Your task to perform on an android device: change text size in settings app Image 0: 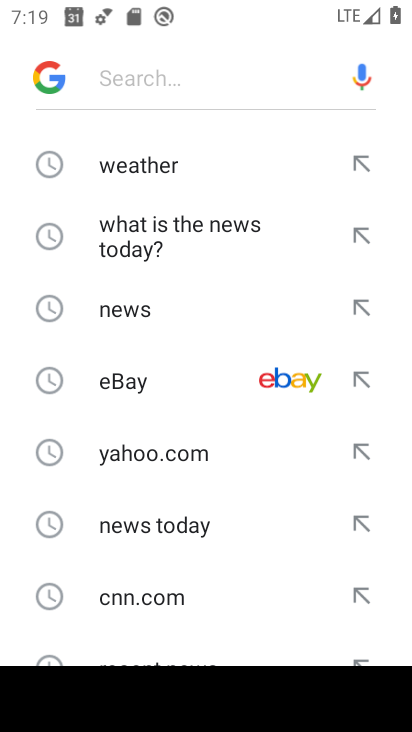
Step 0: press home button
Your task to perform on an android device: change text size in settings app Image 1: 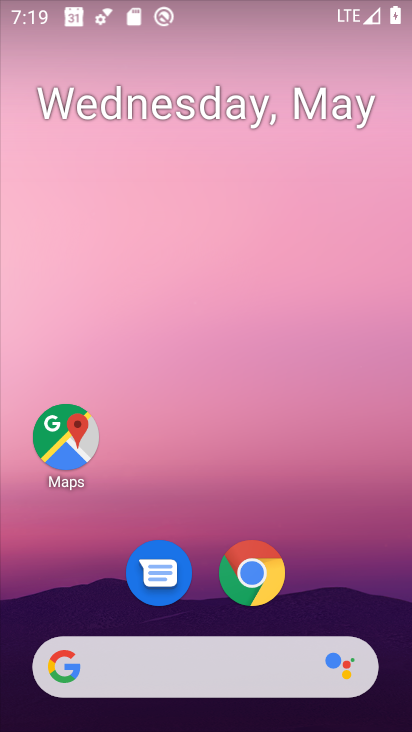
Step 1: drag from (390, 702) to (339, 186)
Your task to perform on an android device: change text size in settings app Image 2: 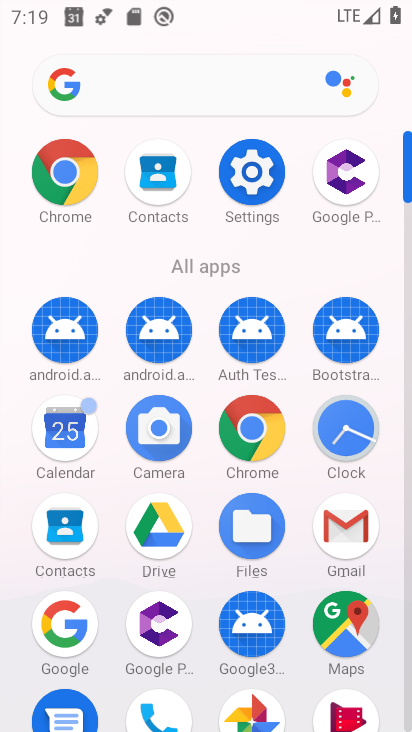
Step 2: click (255, 165)
Your task to perform on an android device: change text size in settings app Image 3: 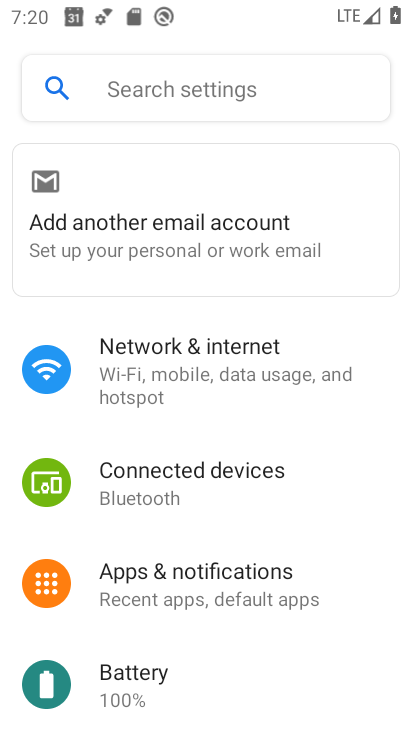
Step 3: drag from (282, 684) to (281, 315)
Your task to perform on an android device: change text size in settings app Image 4: 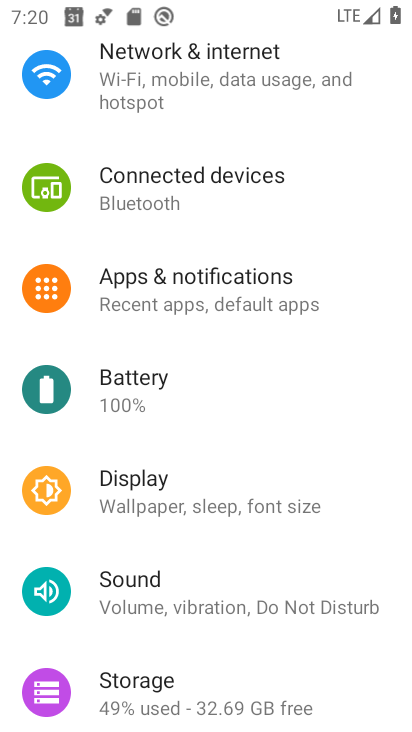
Step 4: click (181, 499)
Your task to perform on an android device: change text size in settings app Image 5: 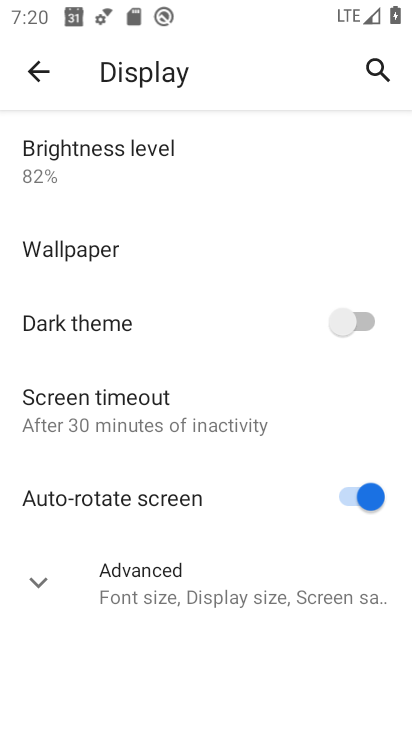
Step 5: click (50, 575)
Your task to perform on an android device: change text size in settings app Image 6: 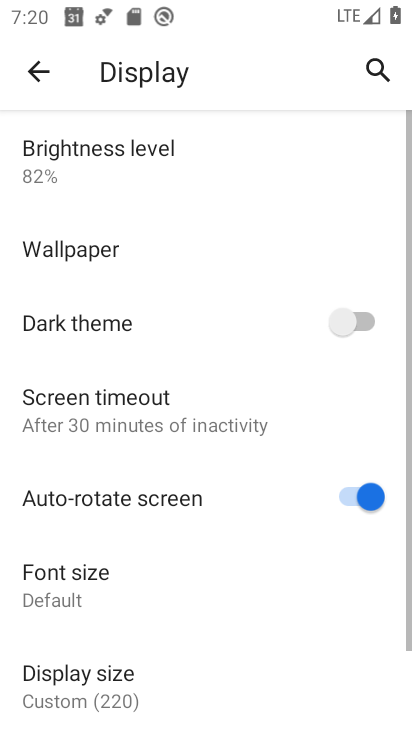
Step 6: drag from (230, 679) to (253, 355)
Your task to perform on an android device: change text size in settings app Image 7: 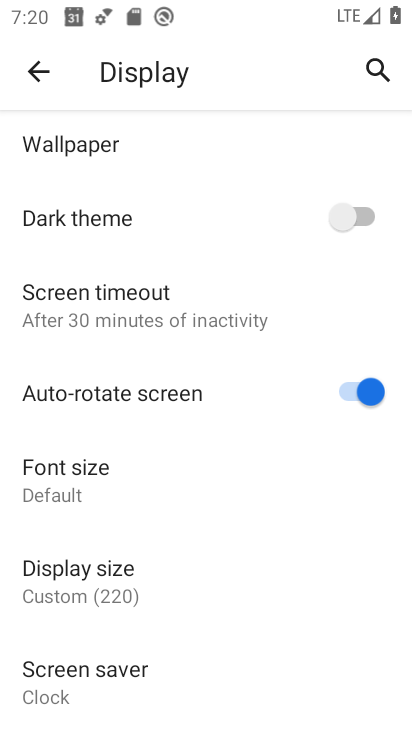
Step 7: click (57, 475)
Your task to perform on an android device: change text size in settings app Image 8: 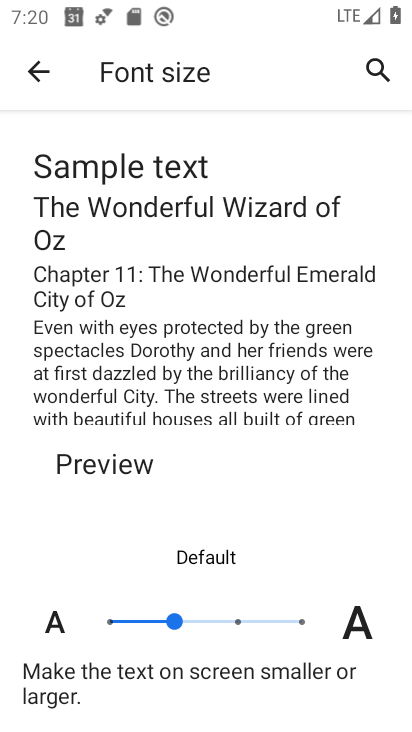
Step 8: click (146, 622)
Your task to perform on an android device: change text size in settings app Image 9: 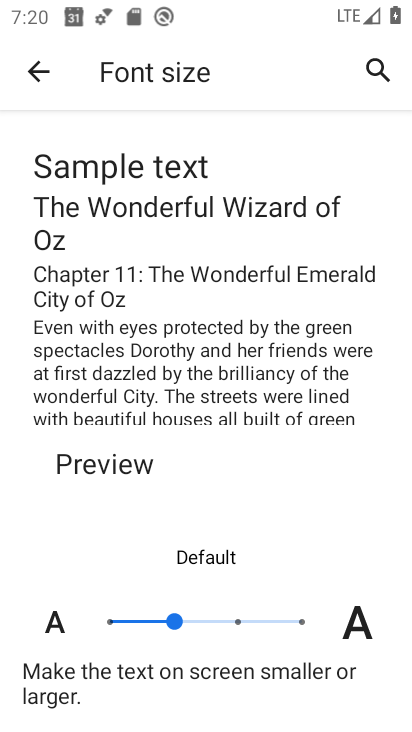
Step 9: click (218, 619)
Your task to perform on an android device: change text size in settings app Image 10: 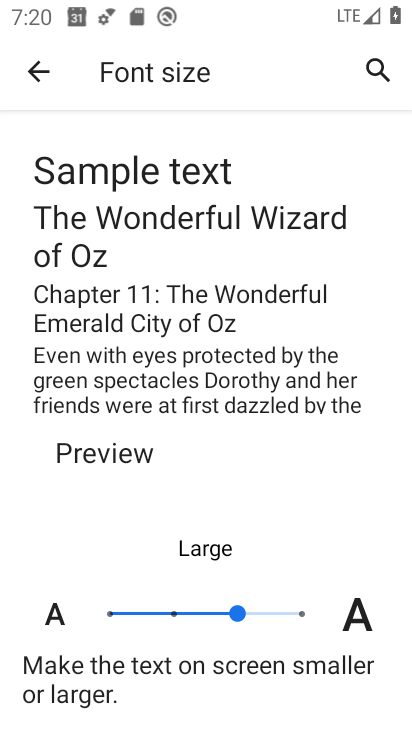
Step 10: click (153, 614)
Your task to perform on an android device: change text size in settings app Image 11: 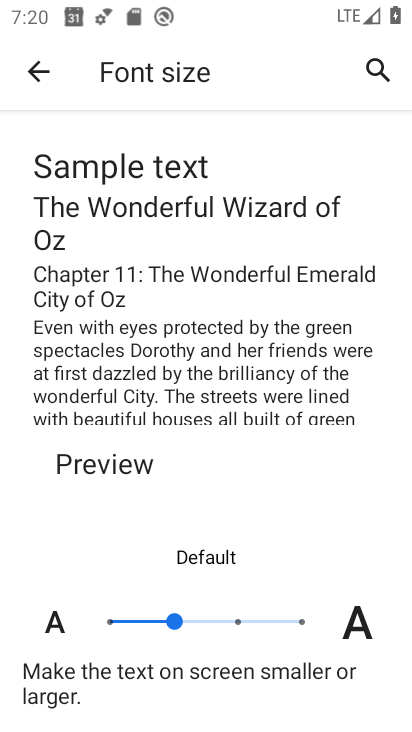
Step 11: click (129, 619)
Your task to perform on an android device: change text size in settings app Image 12: 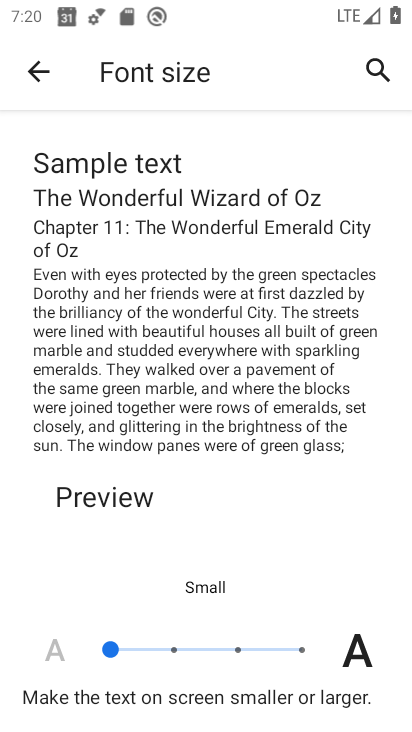
Step 12: task complete